Your task to perform on an android device: Go to Android settings Image 0: 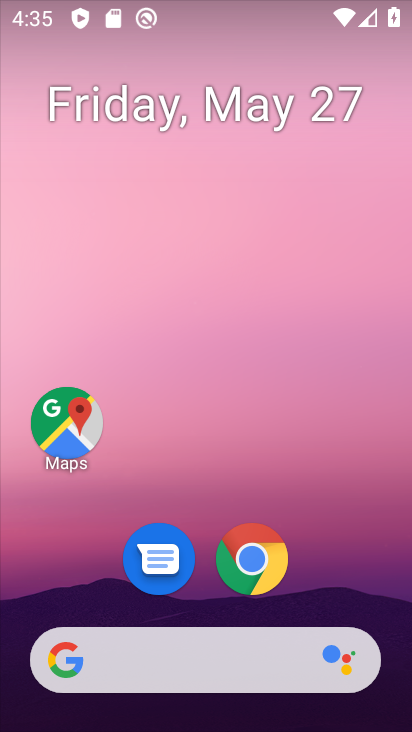
Step 0: drag from (334, 559) to (330, 66)
Your task to perform on an android device: Go to Android settings Image 1: 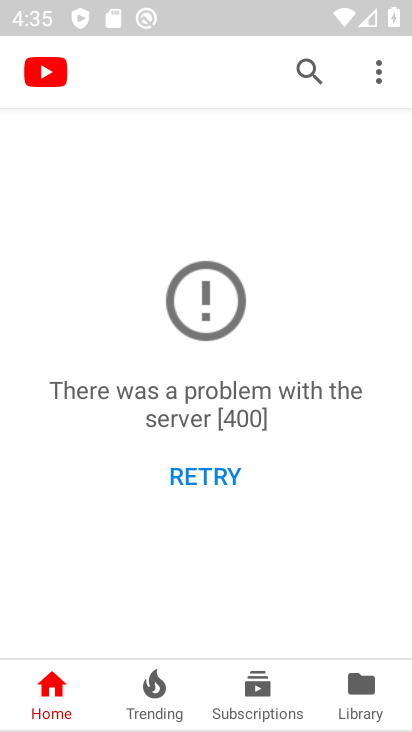
Step 1: press home button
Your task to perform on an android device: Go to Android settings Image 2: 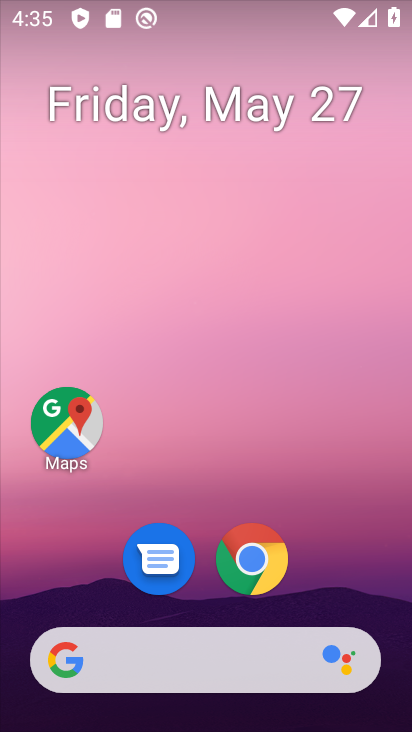
Step 2: drag from (350, 597) to (319, 106)
Your task to perform on an android device: Go to Android settings Image 3: 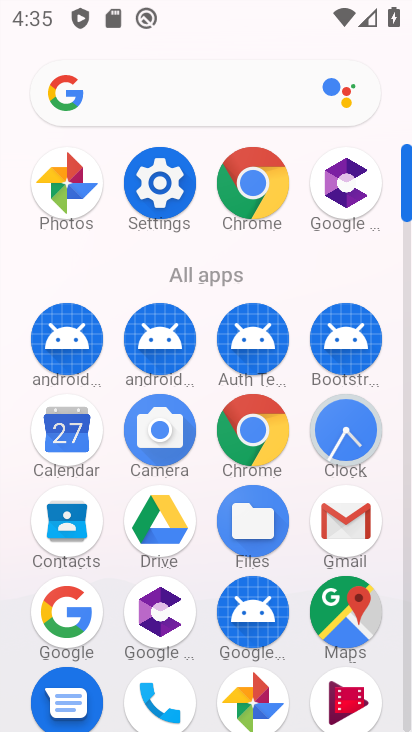
Step 3: drag from (306, 493) to (316, 101)
Your task to perform on an android device: Go to Android settings Image 4: 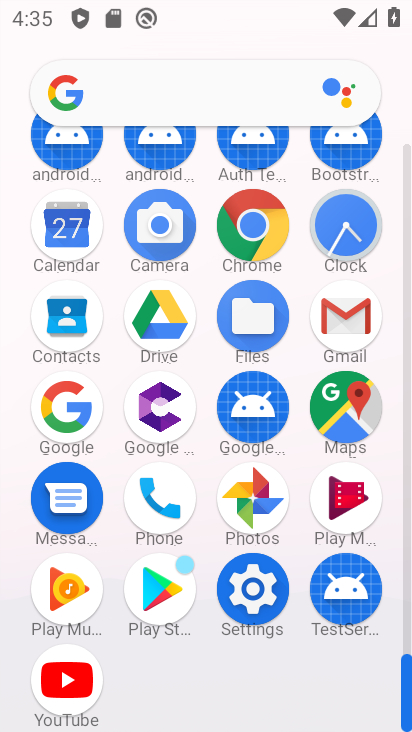
Step 4: click (60, 664)
Your task to perform on an android device: Go to Android settings Image 5: 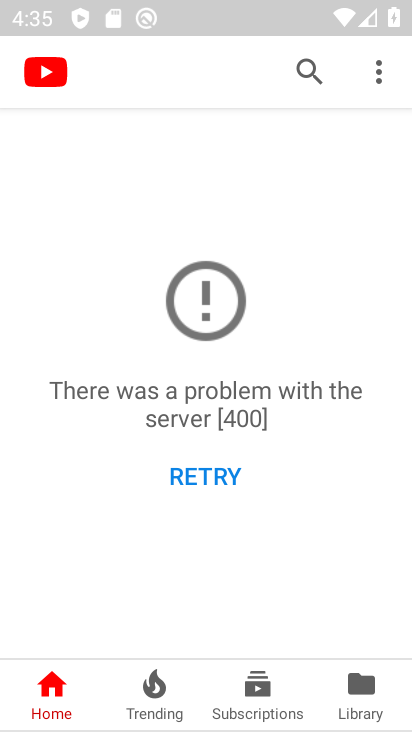
Step 5: press home button
Your task to perform on an android device: Go to Android settings Image 6: 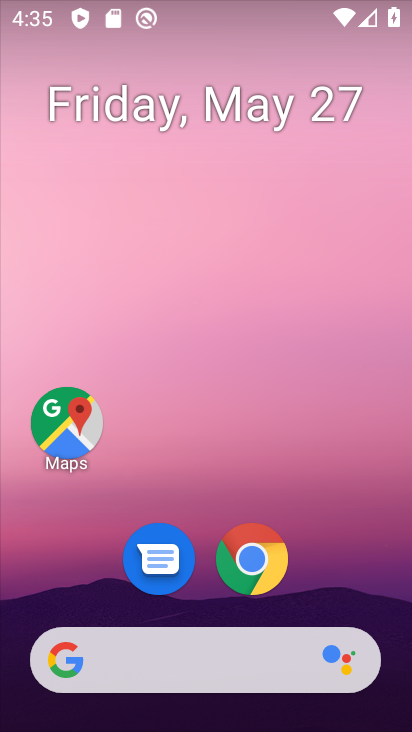
Step 6: drag from (300, 552) to (302, 91)
Your task to perform on an android device: Go to Android settings Image 7: 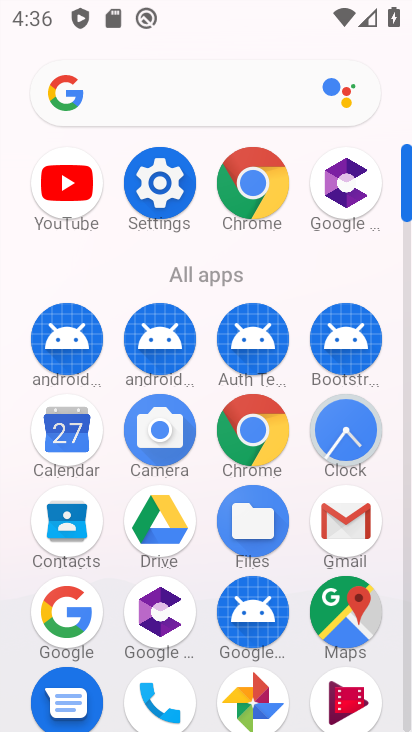
Step 7: drag from (206, 392) to (226, 136)
Your task to perform on an android device: Go to Android settings Image 8: 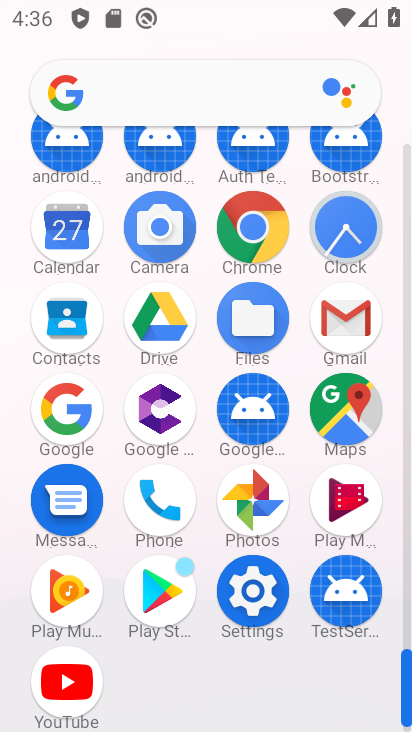
Step 8: click (264, 594)
Your task to perform on an android device: Go to Android settings Image 9: 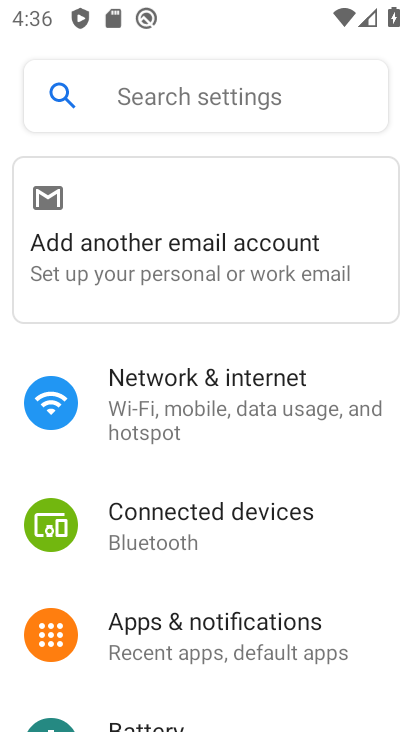
Step 9: drag from (339, 660) to (285, 153)
Your task to perform on an android device: Go to Android settings Image 10: 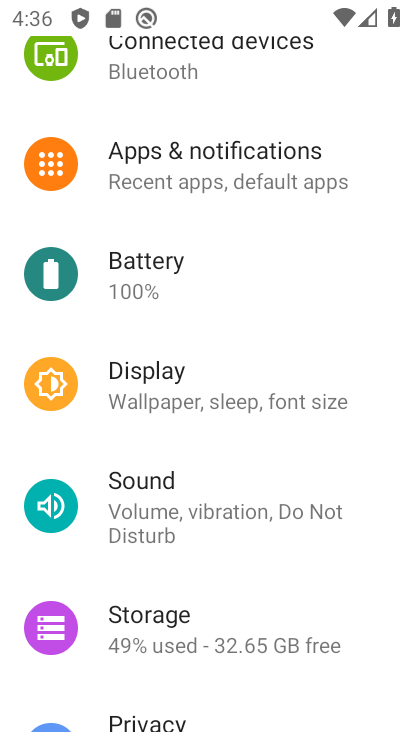
Step 10: drag from (233, 650) to (177, 244)
Your task to perform on an android device: Go to Android settings Image 11: 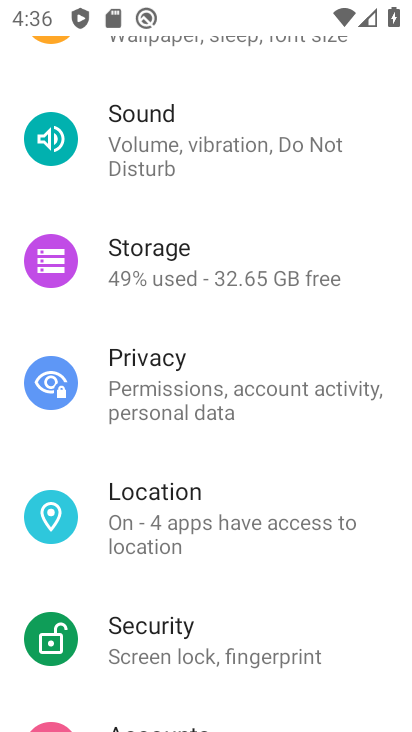
Step 11: drag from (202, 606) to (221, 247)
Your task to perform on an android device: Go to Android settings Image 12: 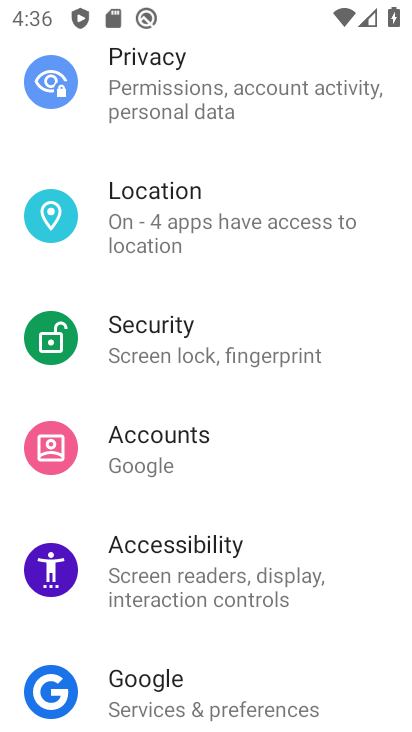
Step 12: drag from (228, 591) to (219, 348)
Your task to perform on an android device: Go to Android settings Image 13: 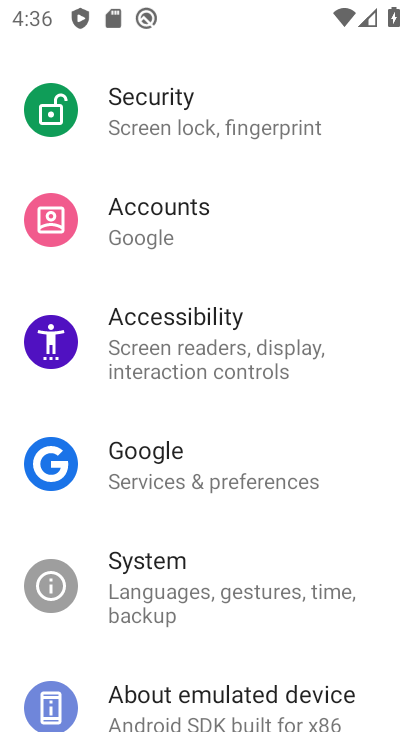
Step 13: drag from (243, 656) to (219, 476)
Your task to perform on an android device: Go to Android settings Image 14: 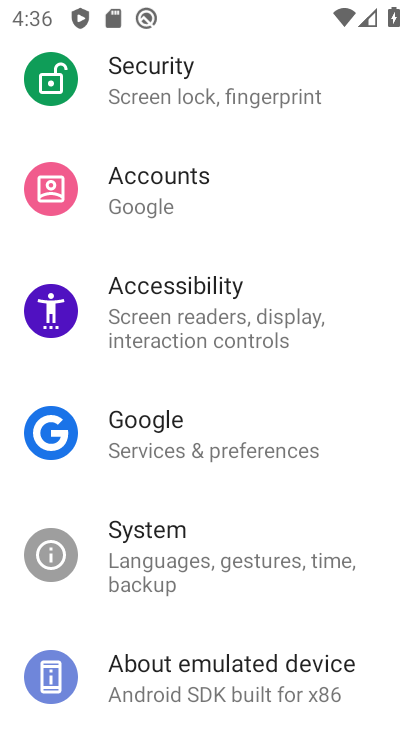
Step 14: click (213, 675)
Your task to perform on an android device: Go to Android settings Image 15: 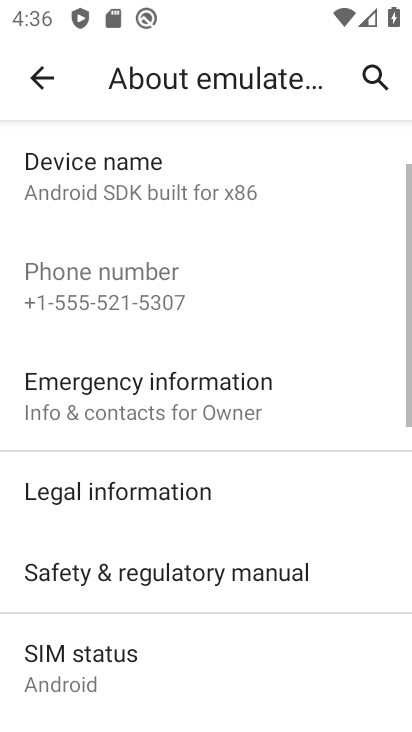
Step 15: drag from (196, 656) to (198, 255)
Your task to perform on an android device: Go to Android settings Image 16: 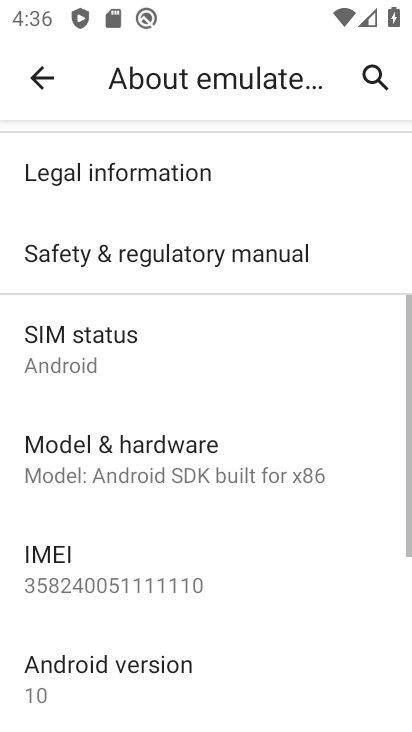
Step 16: click (118, 663)
Your task to perform on an android device: Go to Android settings Image 17: 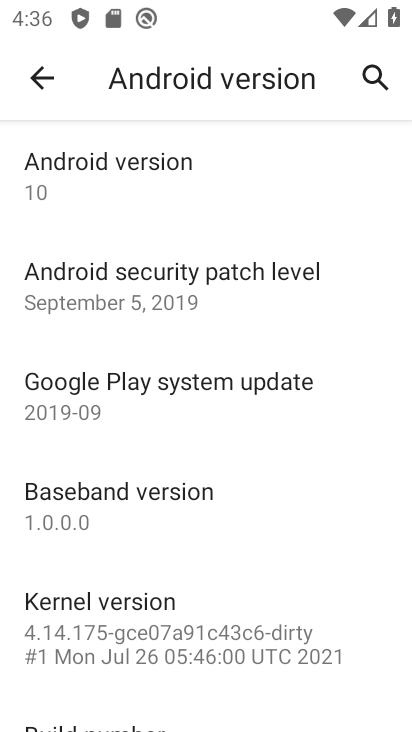
Step 17: task complete